Your task to perform on an android device: manage bookmarks in the chrome app Image 0: 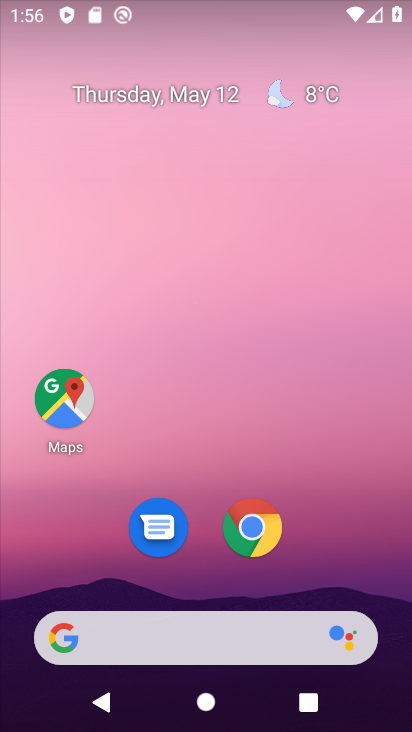
Step 0: click (255, 544)
Your task to perform on an android device: manage bookmarks in the chrome app Image 1: 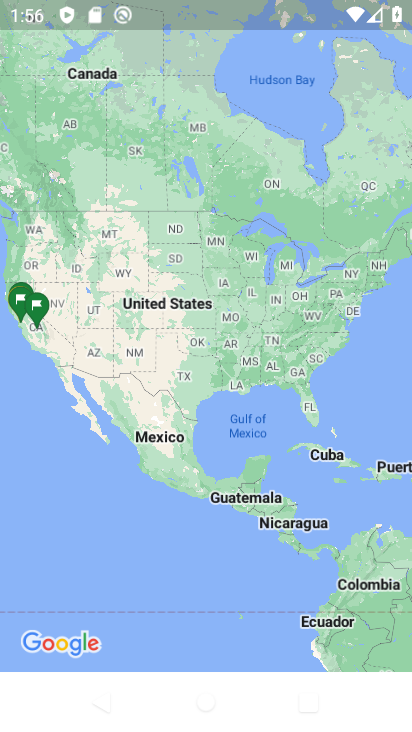
Step 1: press home button
Your task to perform on an android device: manage bookmarks in the chrome app Image 2: 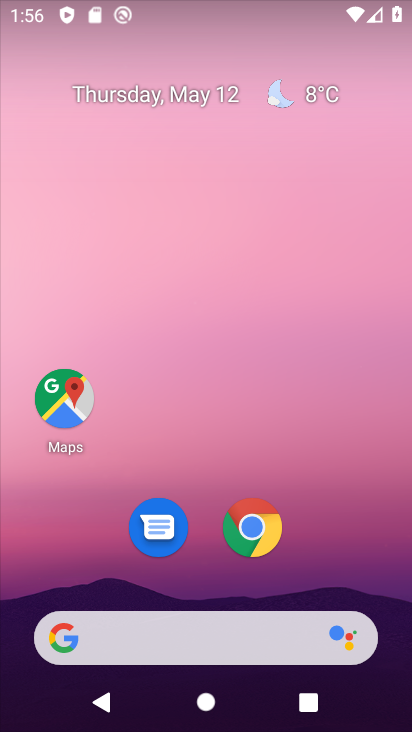
Step 2: click (272, 530)
Your task to perform on an android device: manage bookmarks in the chrome app Image 3: 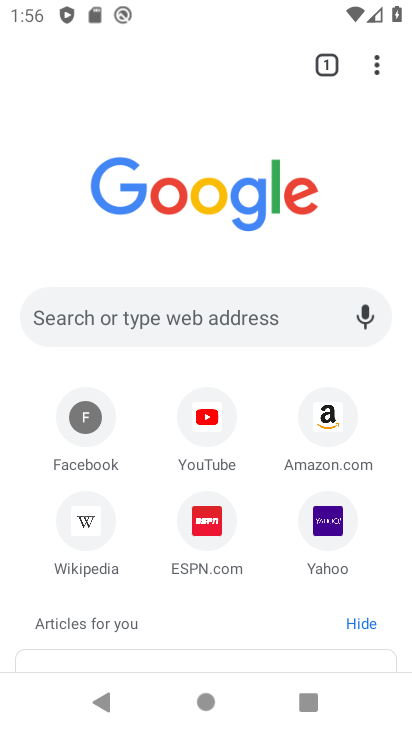
Step 3: drag from (396, 69) to (269, 546)
Your task to perform on an android device: manage bookmarks in the chrome app Image 4: 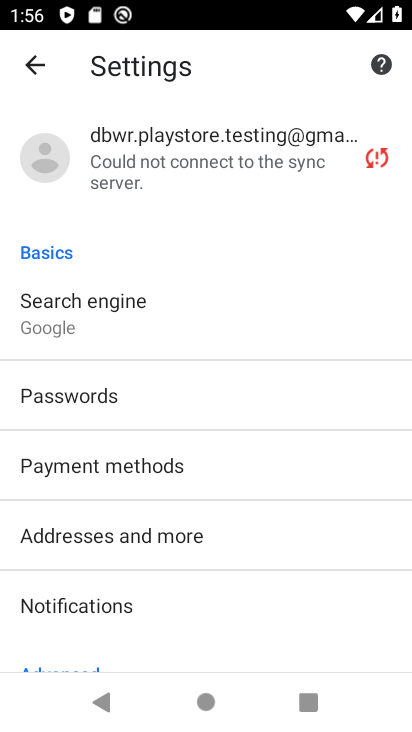
Step 4: drag from (198, 605) to (304, 289)
Your task to perform on an android device: manage bookmarks in the chrome app Image 5: 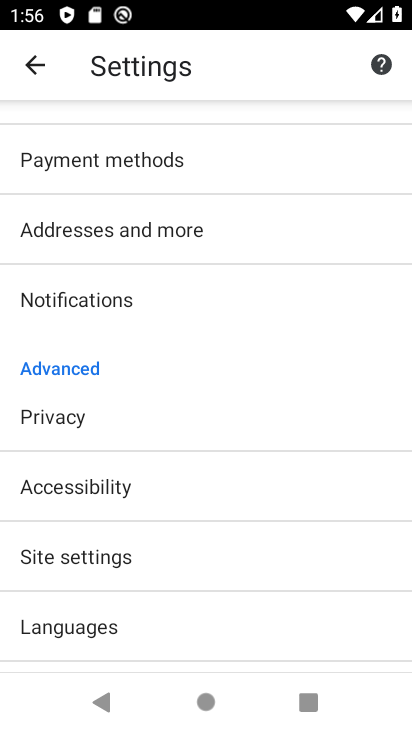
Step 5: drag from (228, 584) to (322, 242)
Your task to perform on an android device: manage bookmarks in the chrome app Image 6: 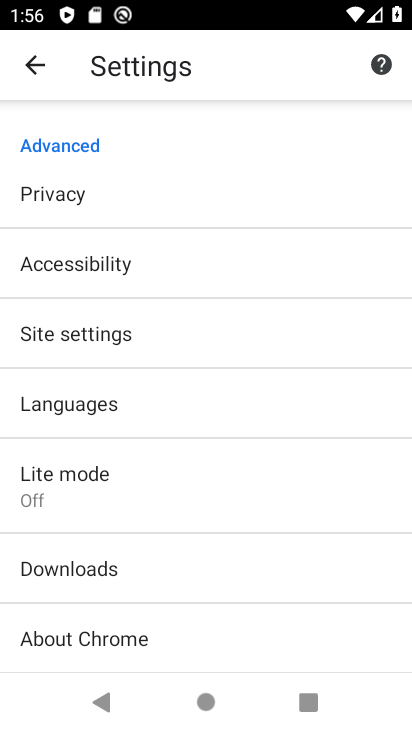
Step 6: drag from (246, 222) to (240, 556)
Your task to perform on an android device: manage bookmarks in the chrome app Image 7: 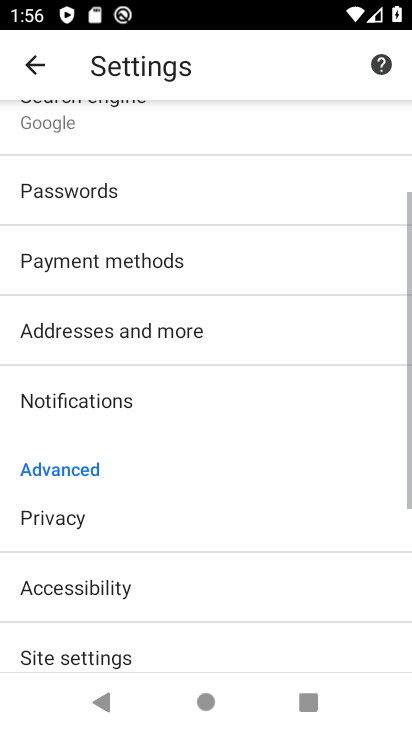
Step 7: click (41, 60)
Your task to perform on an android device: manage bookmarks in the chrome app Image 8: 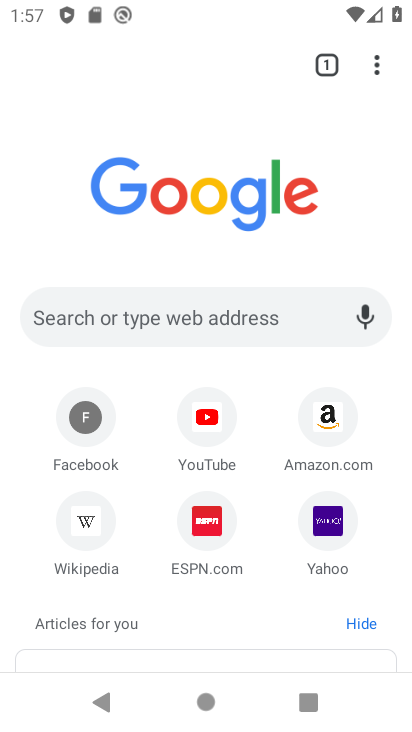
Step 8: task complete